Your task to perform on an android device: Open Yahoo.com Image 0: 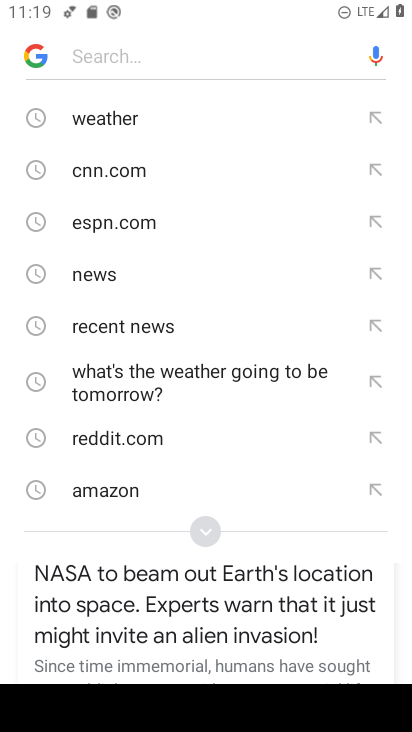
Step 0: press home button
Your task to perform on an android device: Open Yahoo.com Image 1: 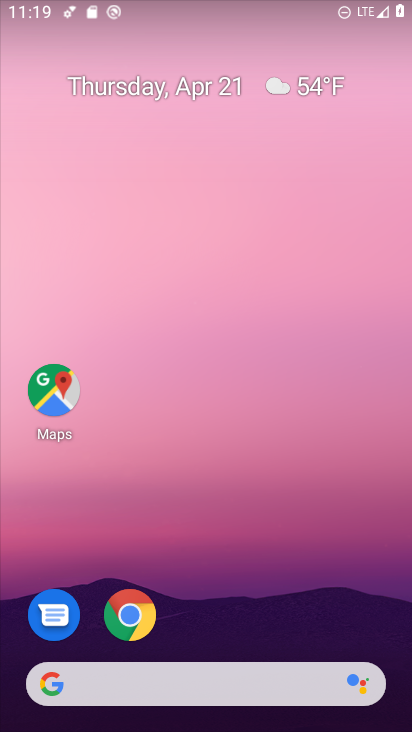
Step 1: click (142, 609)
Your task to perform on an android device: Open Yahoo.com Image 2: 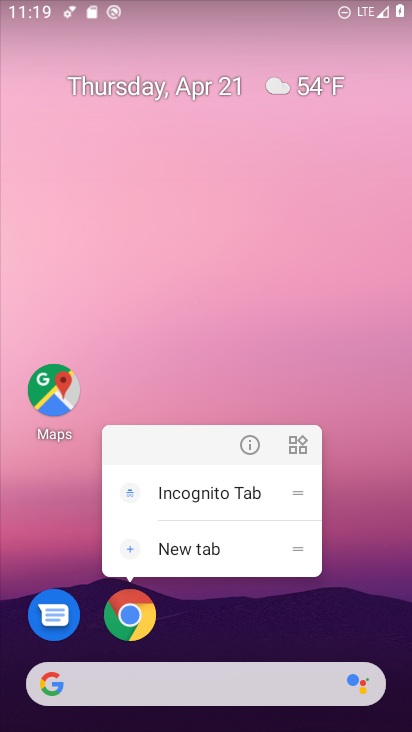
Step 2: click (127, 617)
Your task to perform on an android device: Open Yahoo.com Image 3: 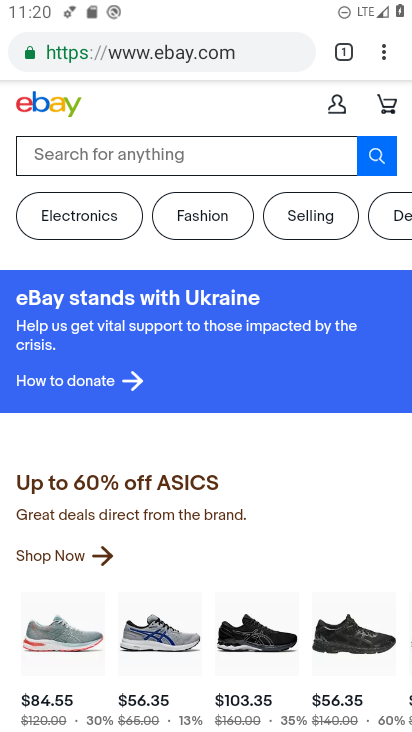
Step 3: click (171, 56)
Your task to perform on an android device: Open Yahoo.com Image 4: 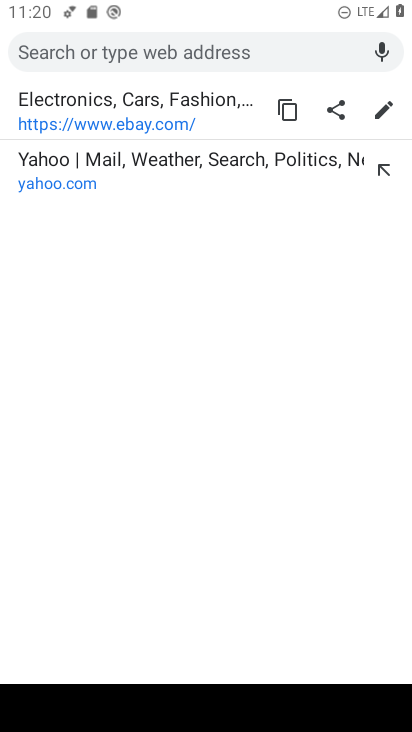
Step 4: type "yahoo.com"
Your task to perform on an android device: Open Yahoo.com Image 5: 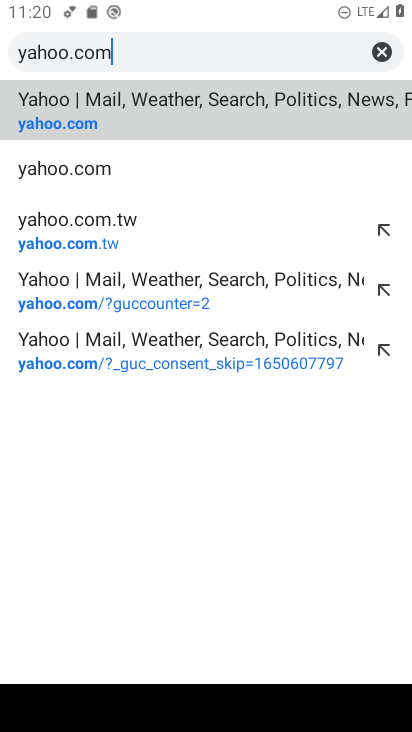
Step 5: click (58, 115)
Your task to perform on an android device: Open Yahoo.com Image 6: 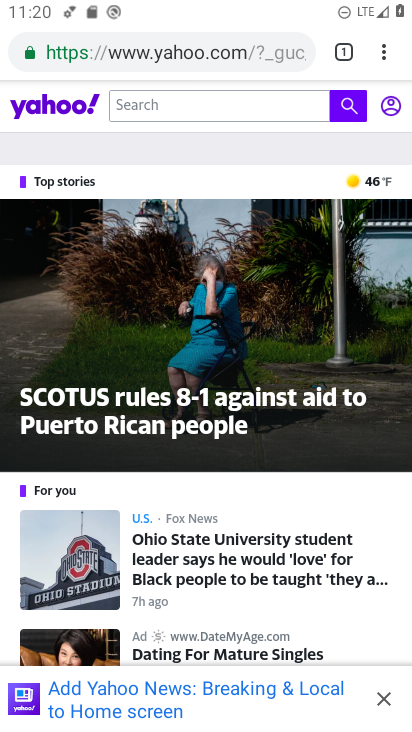
Step 6: task complete